Your task to perform on an android device: What is the capital of Mexico? Image 0: 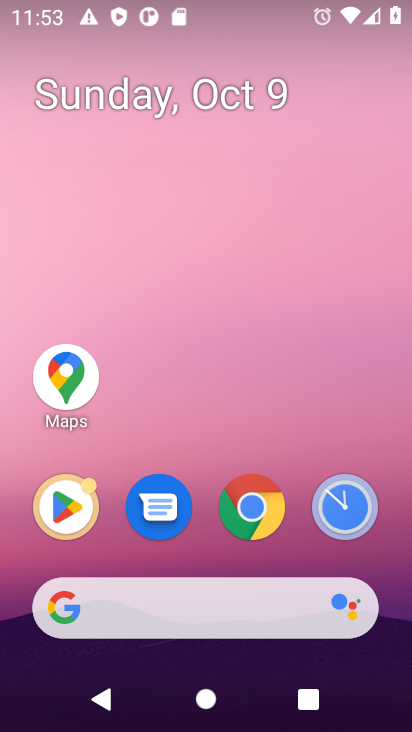
Step 0: click (230, 625)
Your task to perform on an android device: What is the capital of Mexico? Image 1: 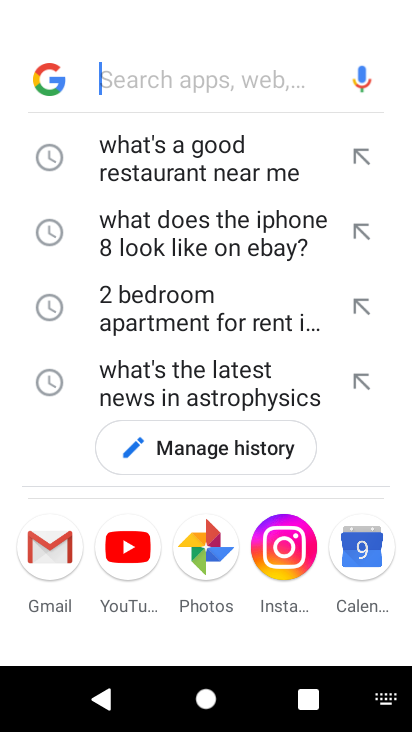
Step 1: type "What is the capital of Mexico"
Your task to perform on an android device: What is the capital of Mexico? Image 2: 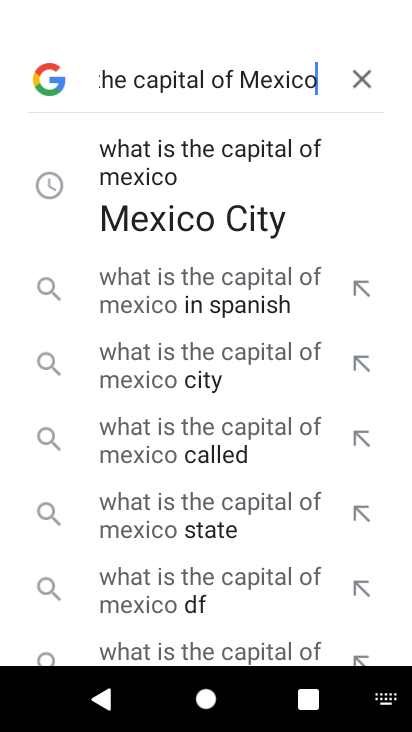
Step 2: press enter
Your task to perform on an android device: What is the capital of Mexico? Image 3: 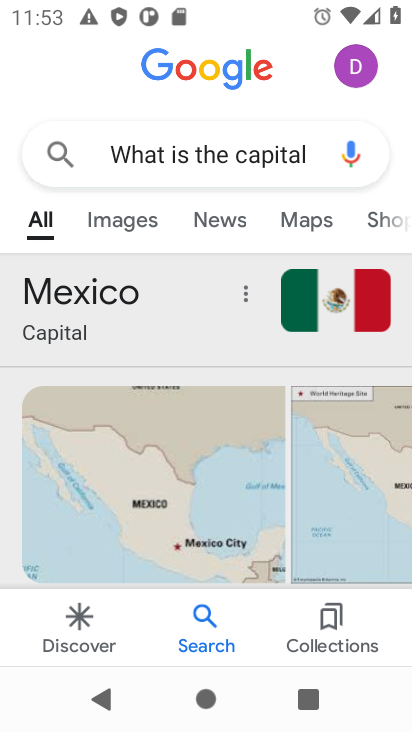
Step 3: task complete